Your task to perform on an android device: turn off priority inbox in the gmail app Image 0: 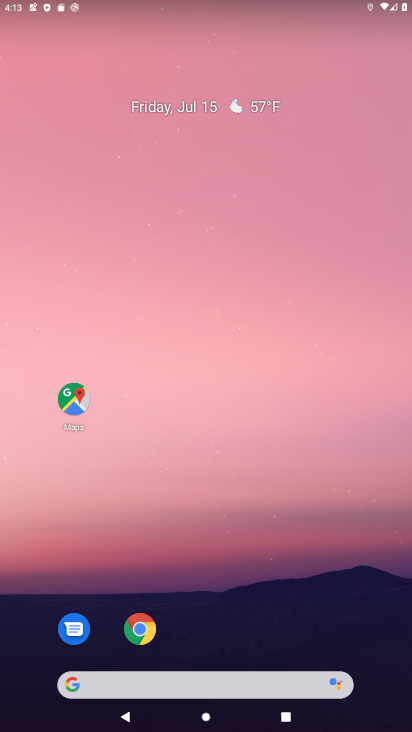
Step 0: press home button
Your task to perform on an android device: turn off priority inbox in the gmail app Image 1: 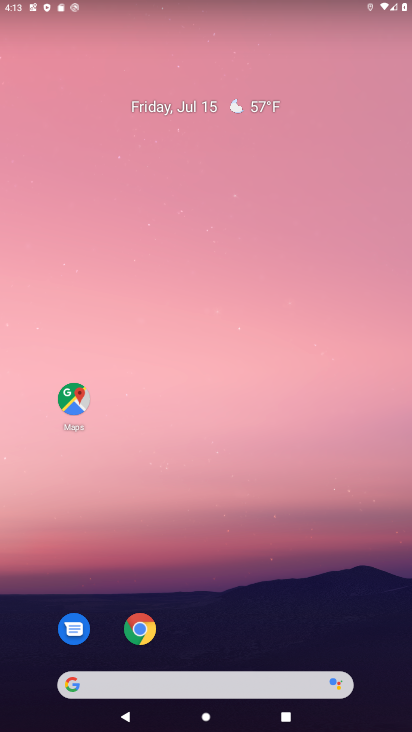
Step 1: drag from (263, 643) to (343, 56)
Your task to perform on an android device: turn off priority inbox in the gmail app Image 2: 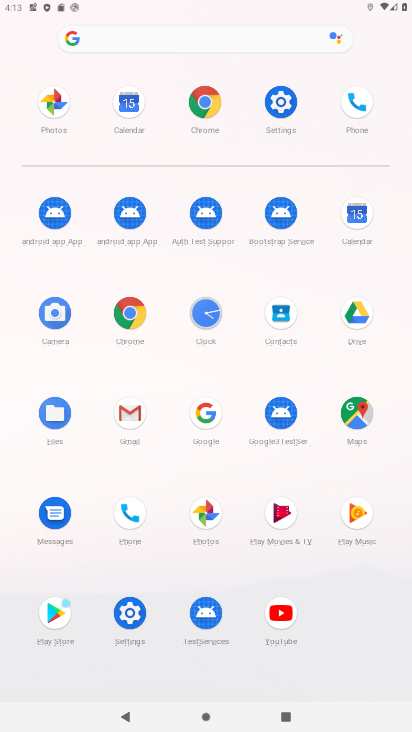
Step 2: click (121, 421)
Your task to perform on an android device: turn off priority inbox in the gmail app Image 3: 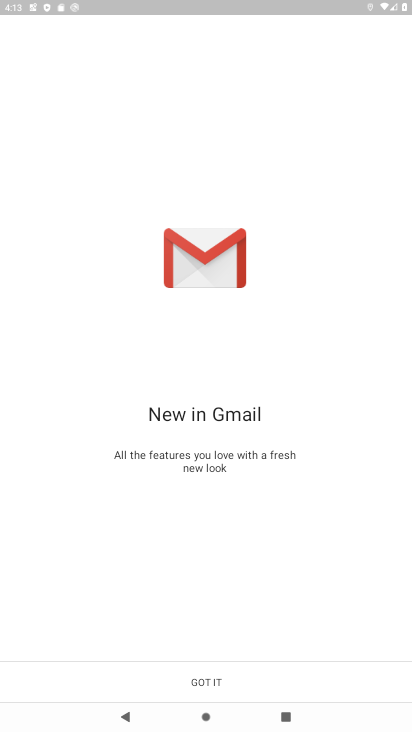
Step 3: click (199, 679)
Your task to perform on an android device: turn off priority inbox in the gmail app Image 4: 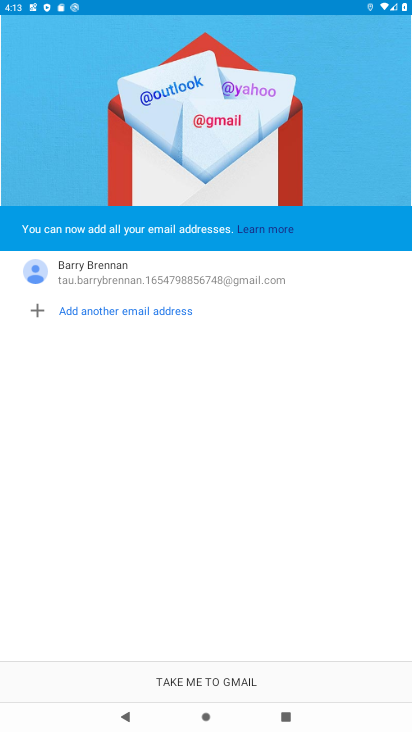
Step 4: click (220, 684)
Your task to perform on an android device: turn off priority inbox in the gmail app Image 5: 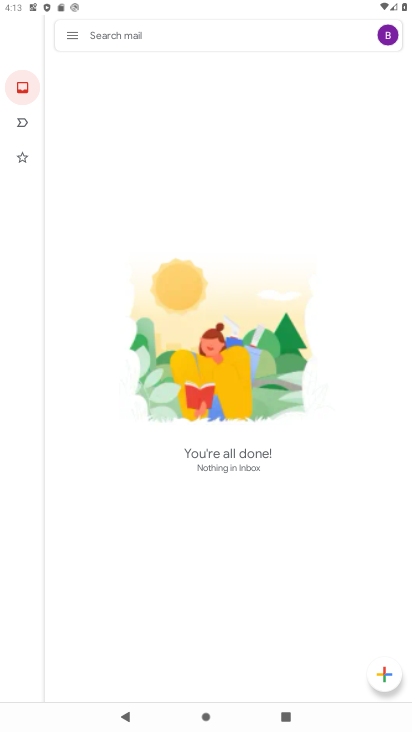
Step 5: click (63, 37)
Your task to perform on an android device: turn off priority inbox in the gmail app Image 6: 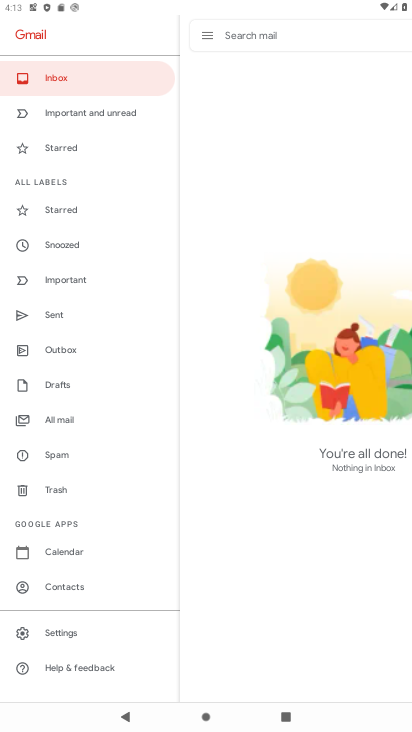
Step 6: click (48, 635)
Your task to perform on an android device: turn off priority inbox in the gmail app Image 7: 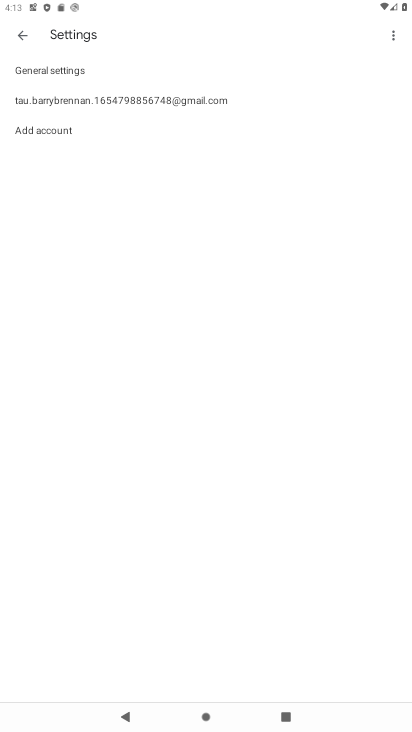
Step 7: click (109, 98)
Your task to perform on an android device: turn off priority inbox in the gmail app Image 8: 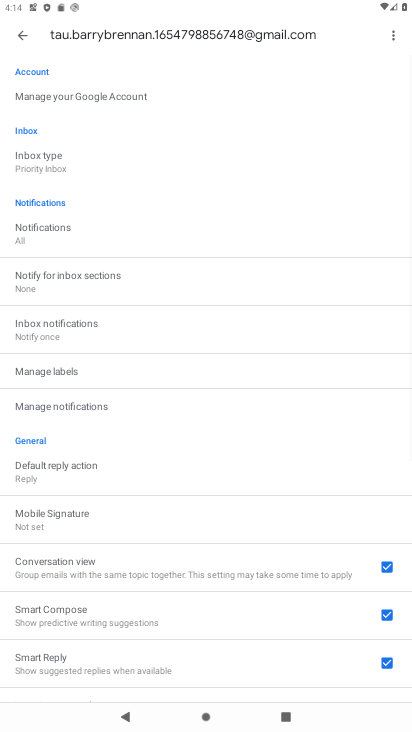
Step 8: click (40, 170)
Your task to perform on an android device: turn off priority inbox in the gmail app Image 9: 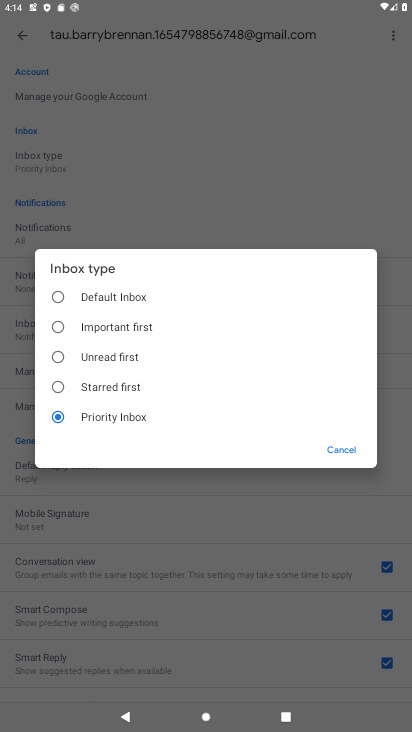
Step 9: click (61, 295)
Your task to perform on an android device: turn off priority inbox in the gmail app Image 10: 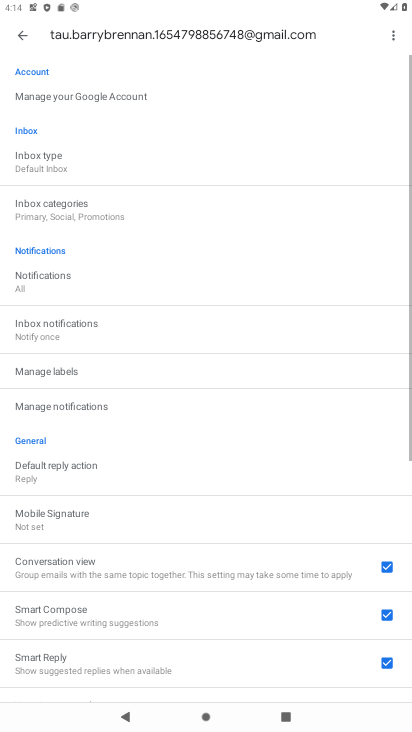
Step 10: task complete